Your task to perform on an android device: move an email to a new category in the gmail app Image 0: 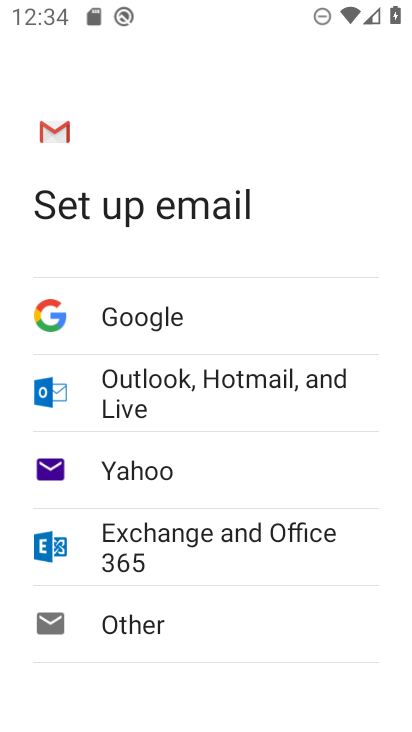
Step 0: press home button
Your task to perform on an android device: move an email to a new category in the gmail app Image 1: 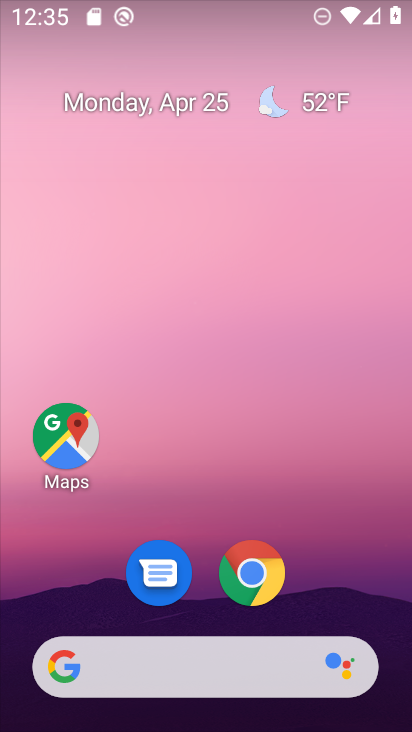
Step 1: drag from (240, 722) to (244, 155)
Your task to perform on an android device: move an email to a new category in the gmail app Image 2: 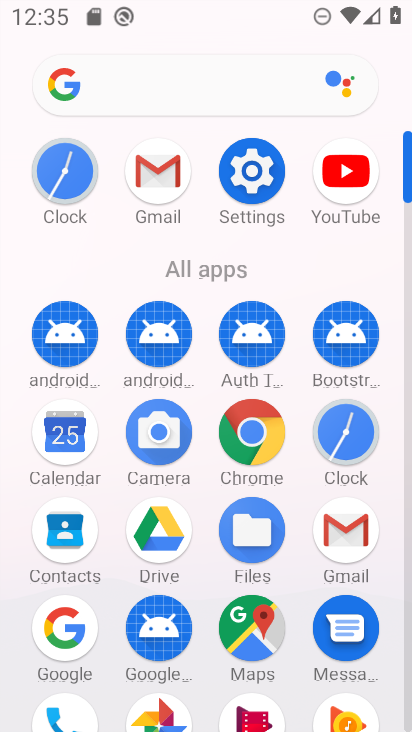
Step 2: click (349, 520)
Your task to perform on an android device: move an email to a new category in the gmail app Image 3: 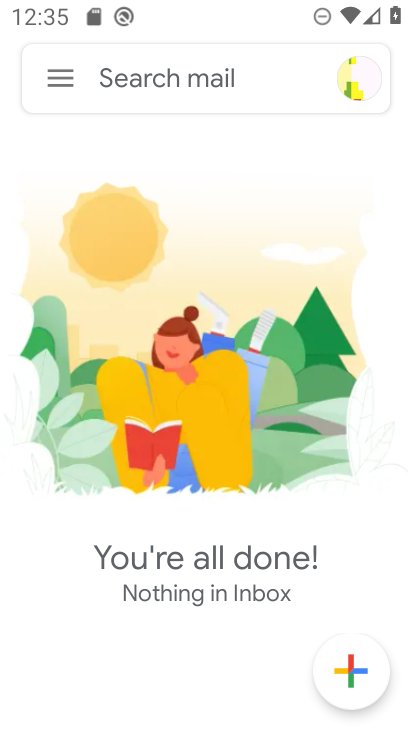
Step 3: task complete